Your task to perform on an android device: turn notification dots off Image 0: 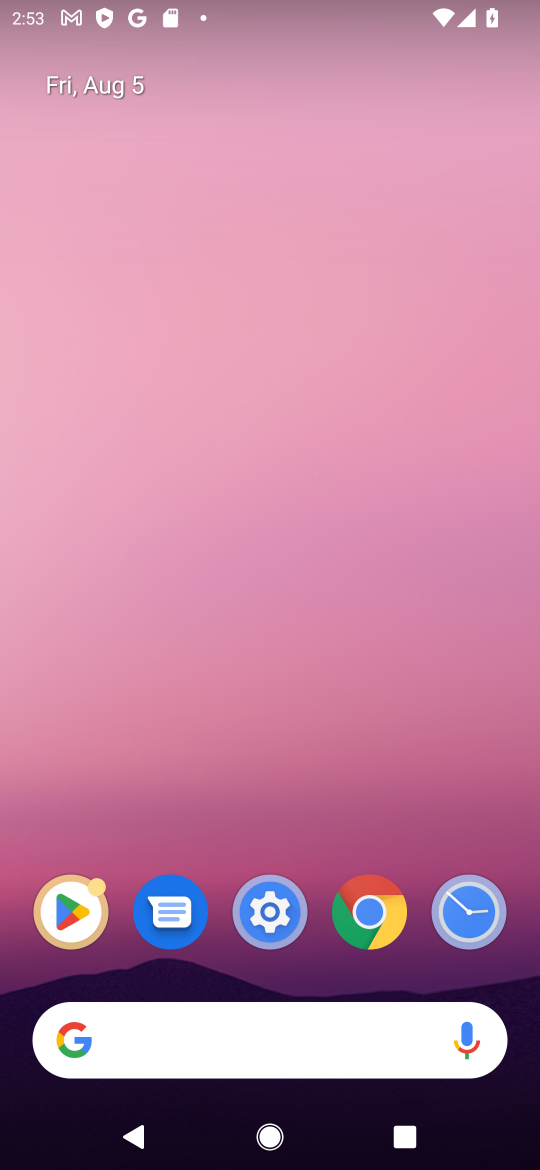
Step 0: drag from (235, 512) to (239, 240)
Your task to perform on an android device: turn notification dots off Image 1: 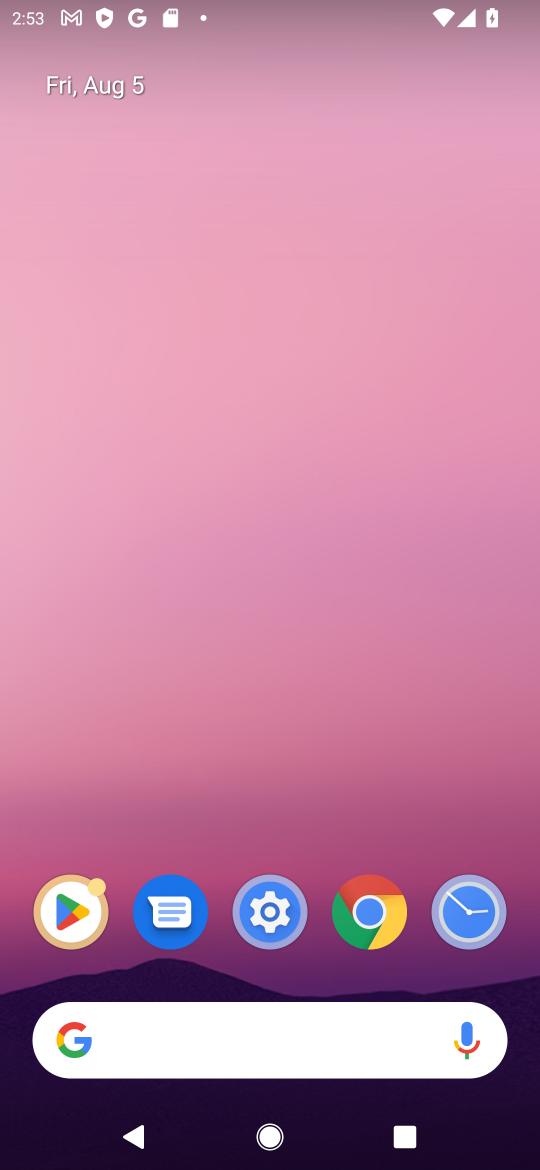
Step 1: click (288, 931)
Your task to perform on an android device: turn notification dots off Image 2: 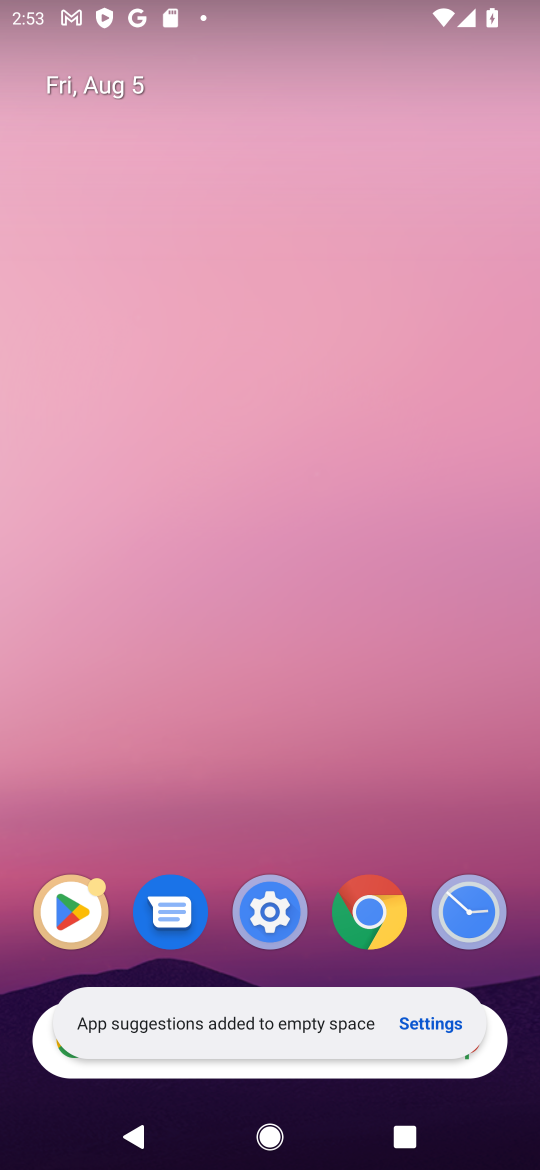
Step 2: click (276, 896)
Your task to perform on an android device: turn notification dots off Image 3: 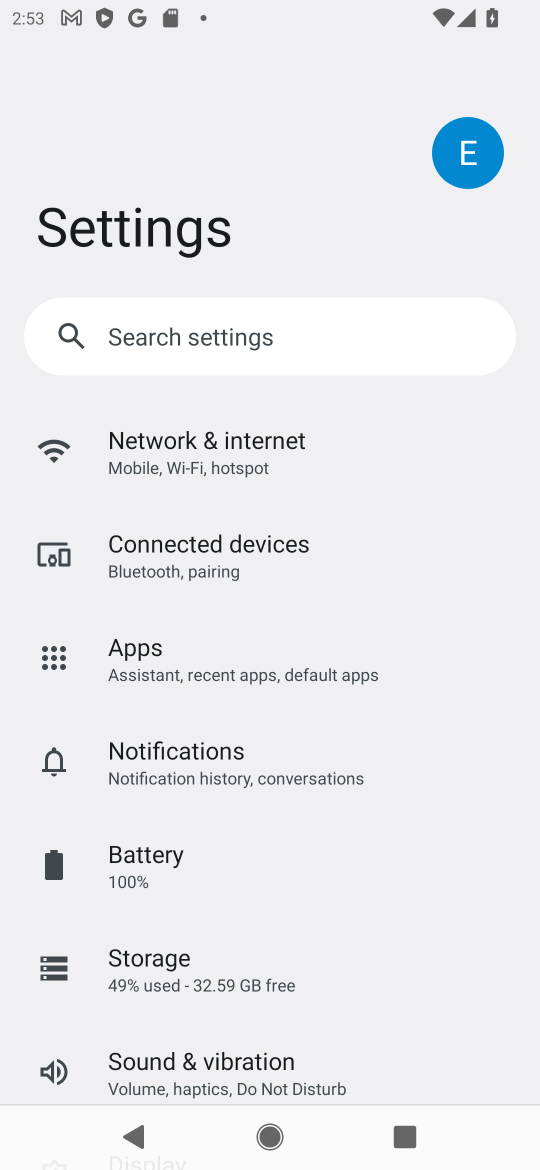
Step 3: click (230, 775)
Your task to perform on an android device: turn notification dots off Image 4: 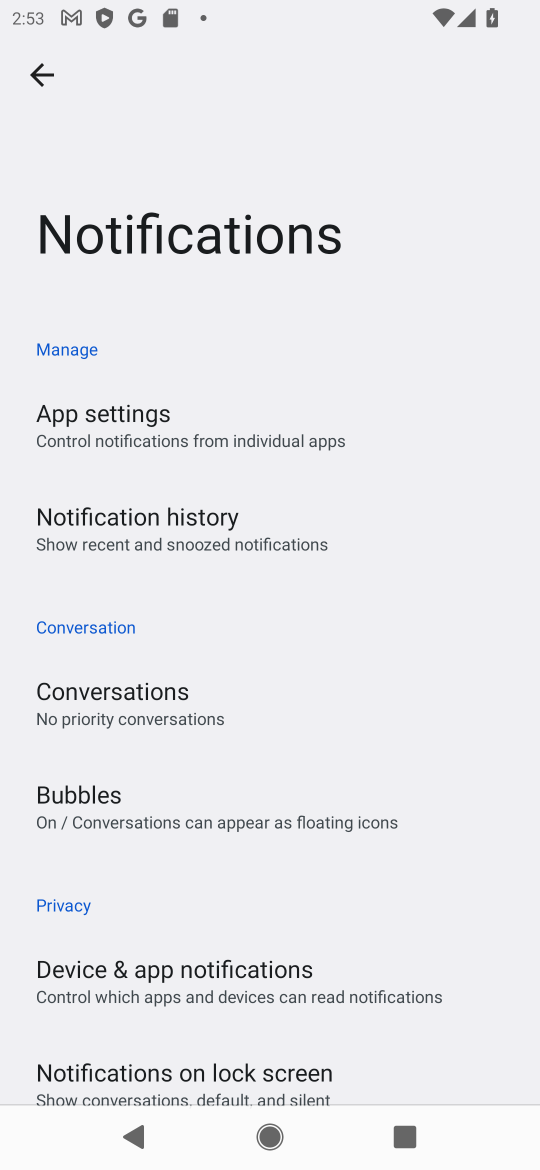
Step 4: drag from (216, 950) to (266, 467)
Your task to perform on an android device: turn notification dots off Image 5: 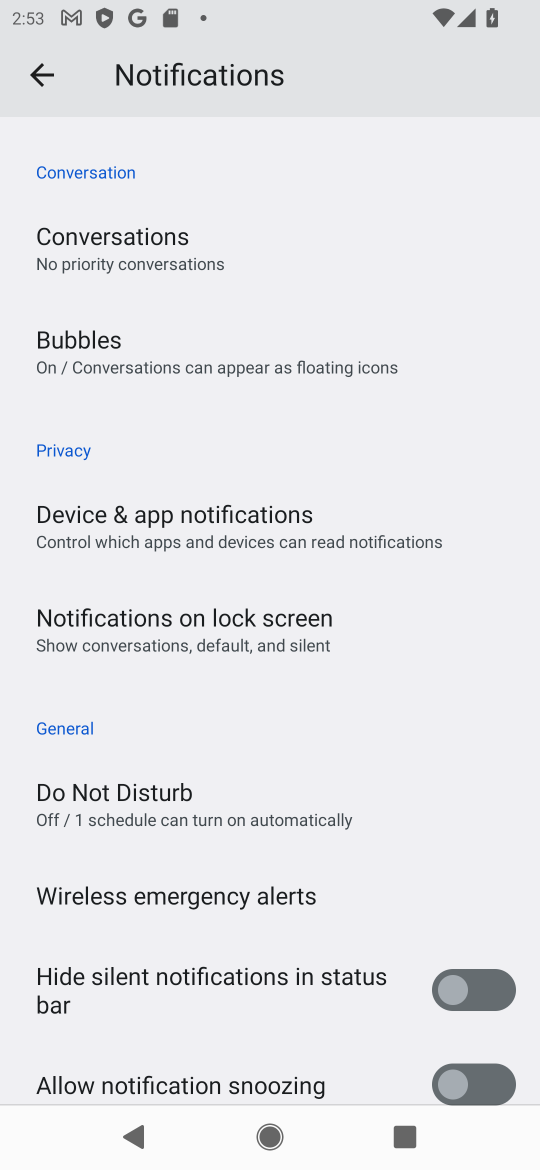
Step 5: drag from (292, 975) to (345, 482)
Your task to perform on an android device: turn notification dots off Image 6: 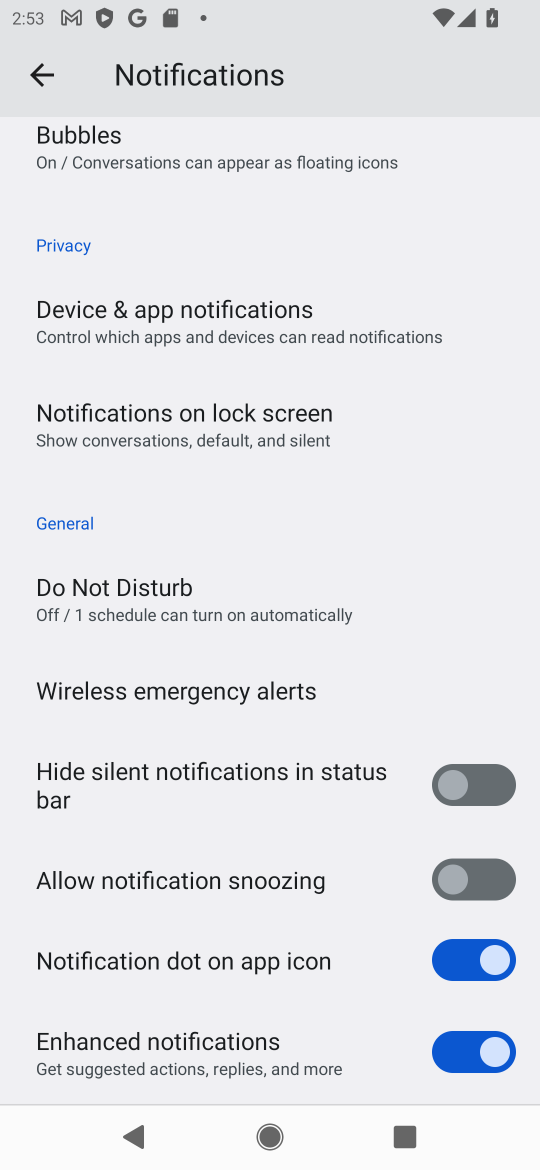
Step 6: drag from (334, 906) to (372, 596)
Your task to perform on an android device: turn notification dots off Image 7: 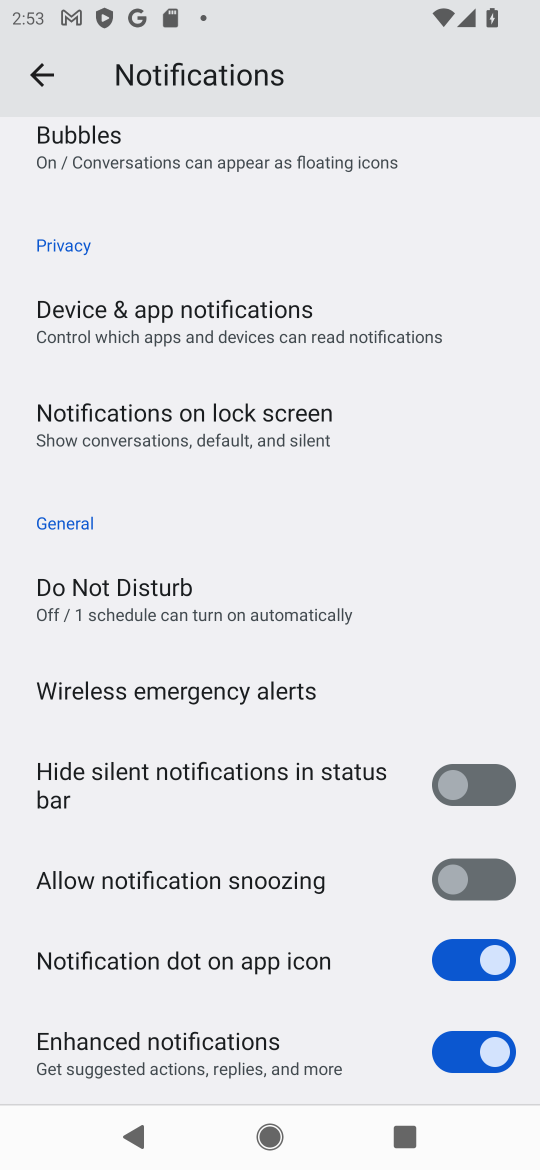
Step 7: click (436, 979)
Your task to perform on an android device: turn notification dots off Image 8: 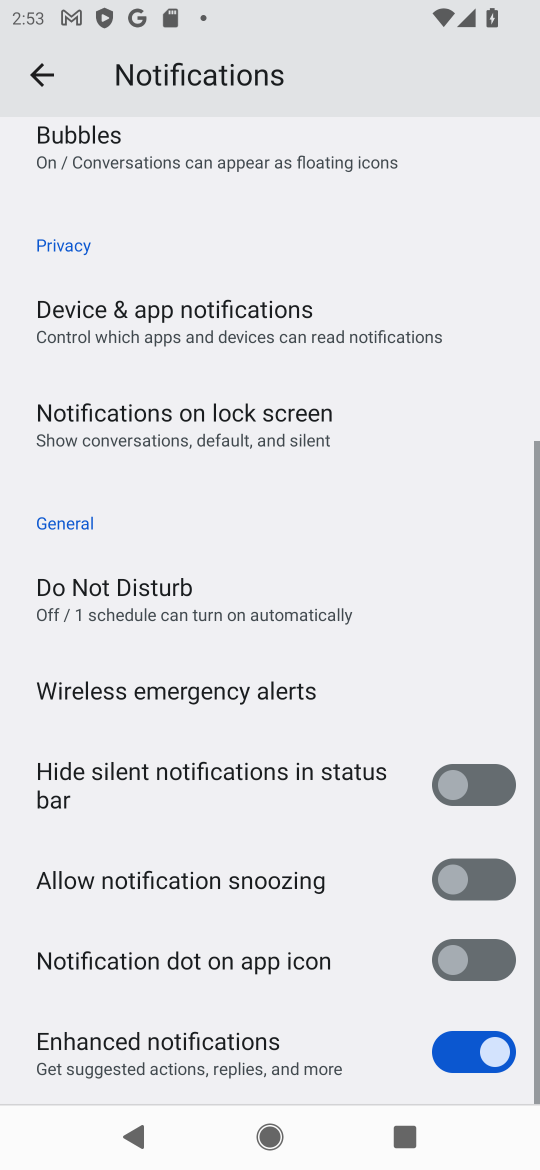
Step 8: task complete